Your task to perform on an android device: Go to location settings Image 0: 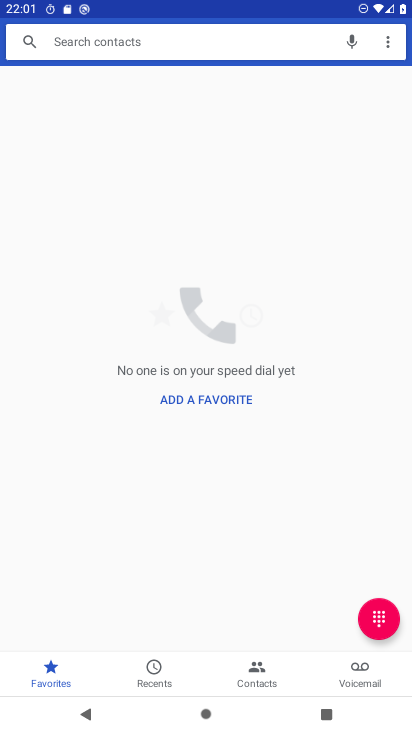
Step 0: press home button
Your task to perform on an android device: Go to location settings Image 1: 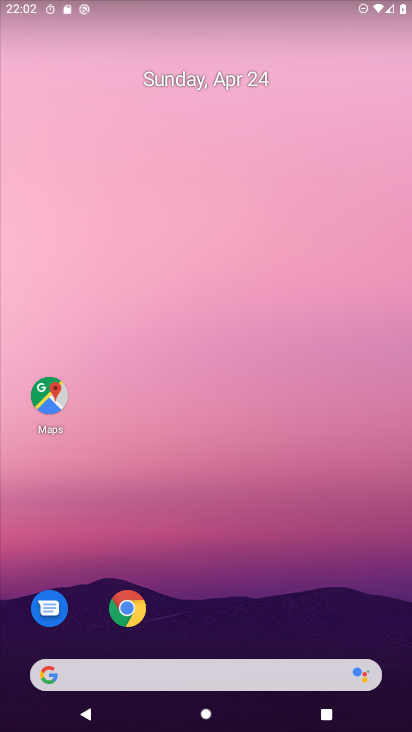
Step 1: drag from (280, 614) to (231, 35)
Your task to perform on an android device: Go to location settings Image 2: 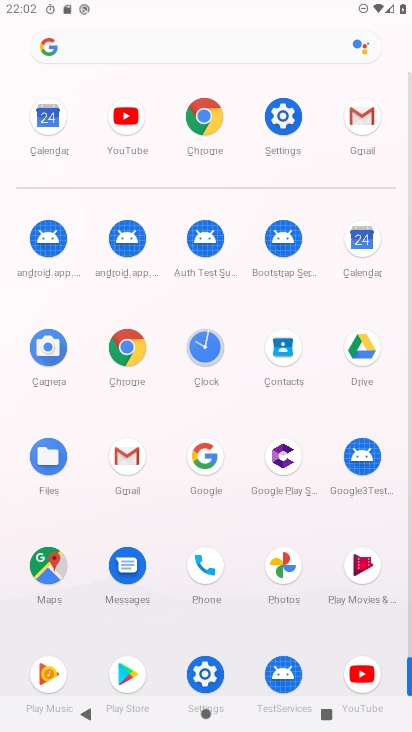
Step 2: click (283, 106)
Your task to perform on an android device: Go to location settings Image 3: 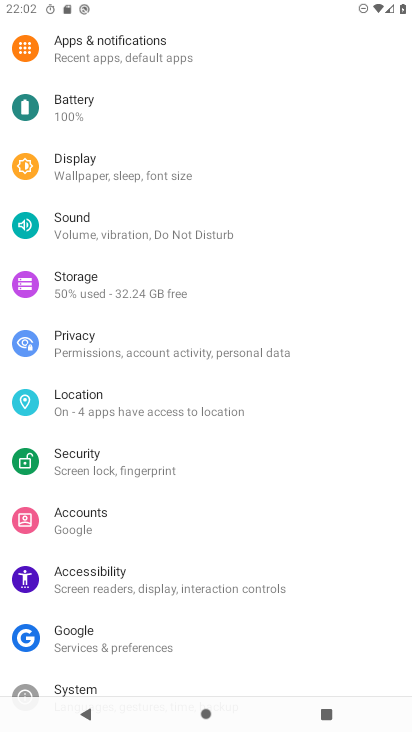
Step 3: click (178, 384)
Your task to perform on an android device: Go to location settings Image 4: 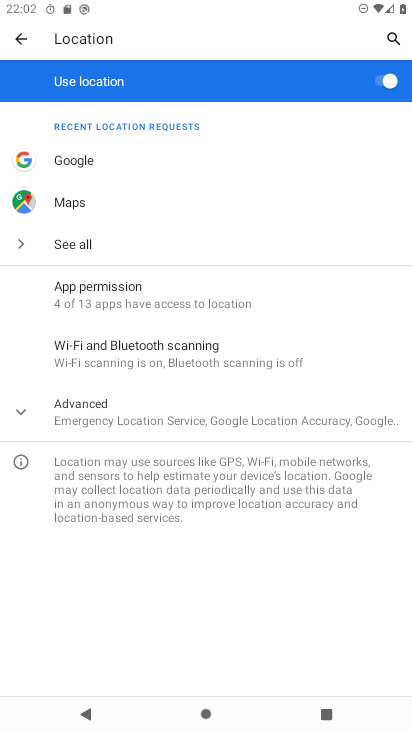
Step 4: task complete